Your task to perform on an android device: Open CNN.com Image 0: 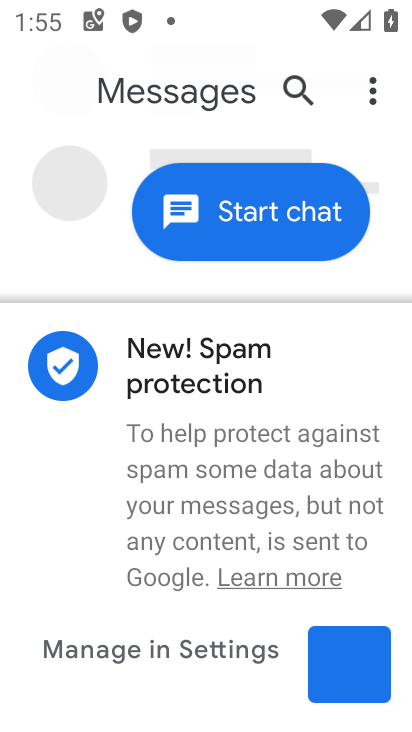
Step 0: press home button
Your task to perform on an android device: Open CNN.com Image 1: 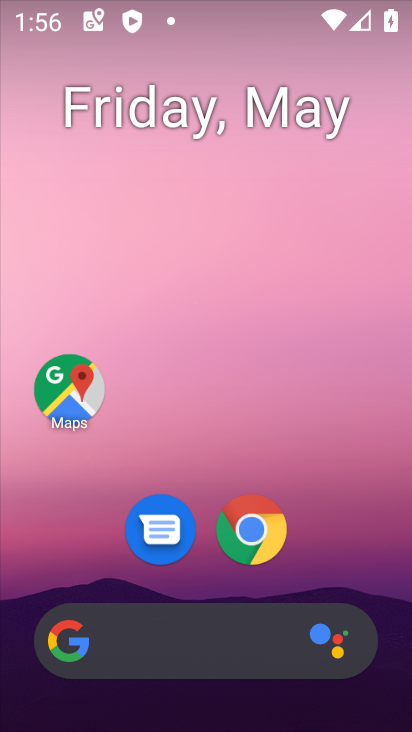
Step 1: click (256, 508)
Your task to perform on an android device: Open CNN.com Image 2: 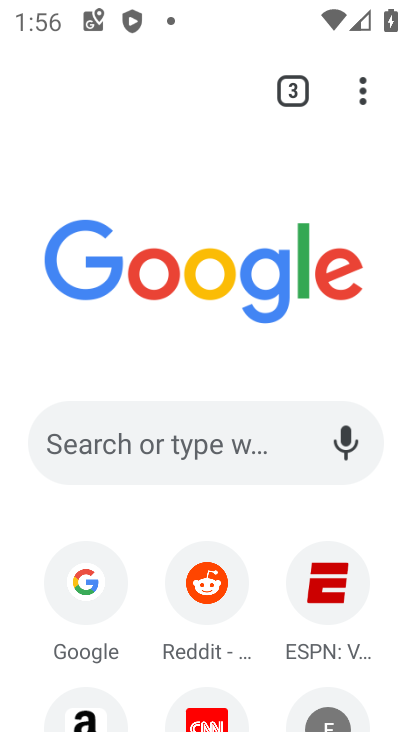
Step 2: click (236, 456)
Your task to perform on an android device: Open CNN.com Image 3: 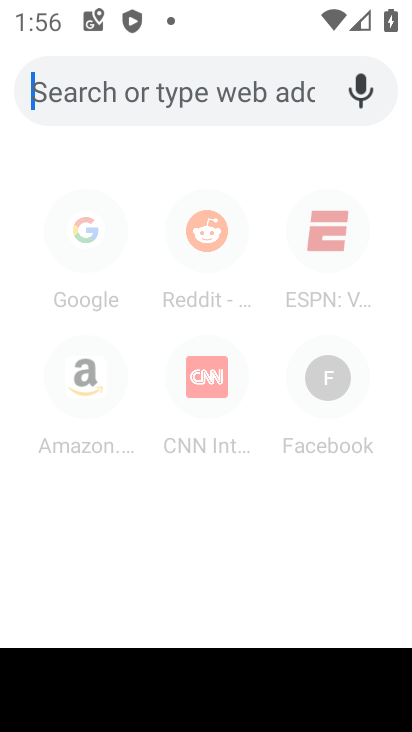
Step 3: type "cnn.com"
Your task to perform on an android device: Open CNN.com Image 4: 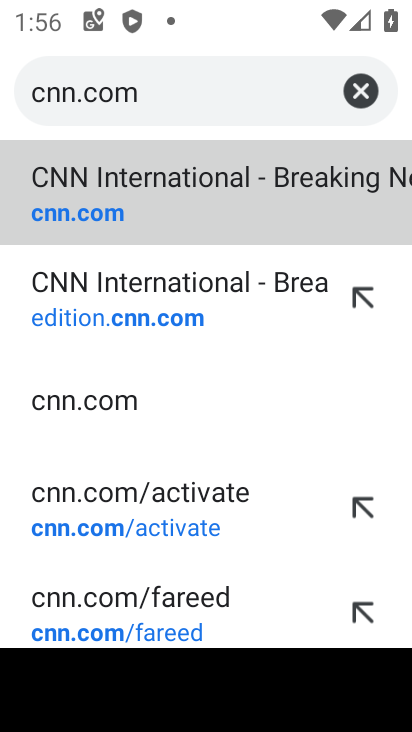
Step 4: click (332, 221)
Your task to perform on an android device: Open CNN.com Image 5: 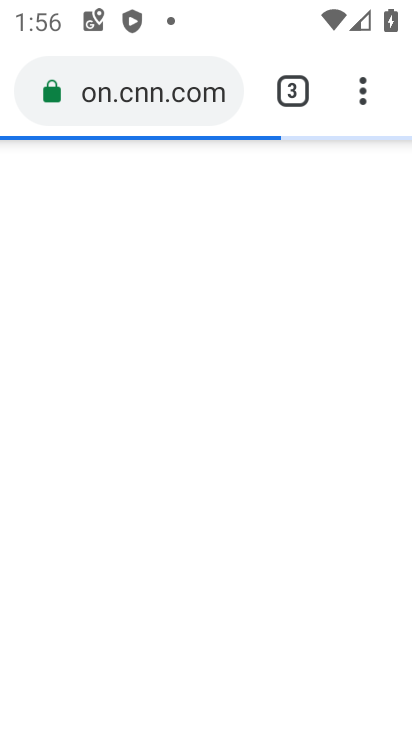
Step 5: task complete